Your task to perform on an android device: turn on data saver in the chrome app Image 0: 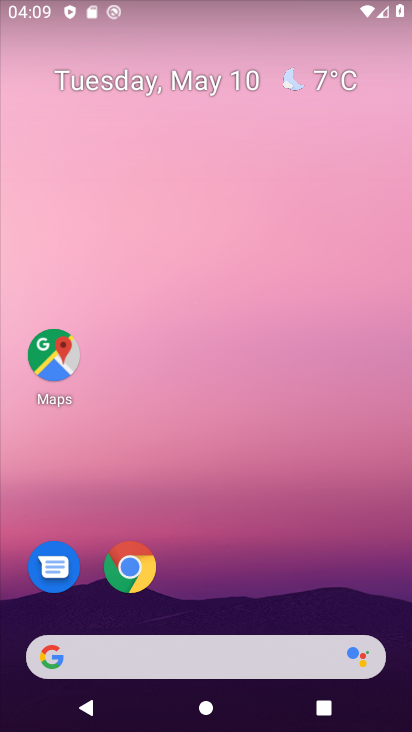
Step 0: click (127, 565)
Your task to perform on an android device: turn on data saver in the chrome app Image 1: 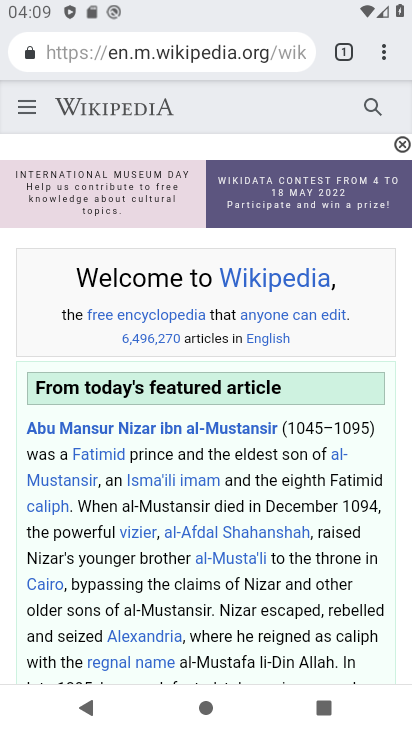
Step 1: click (379, 52)
Your task to perform on an android device: turn on data saver in the chrome app Image 2: 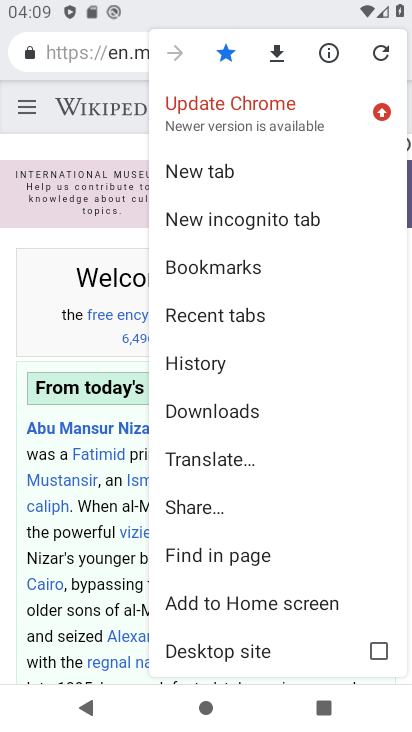
Step 2: drag from (289, 587) to (336, 422)
Your task to perform on an android device: turn on data saver in the chrome app Image 3: 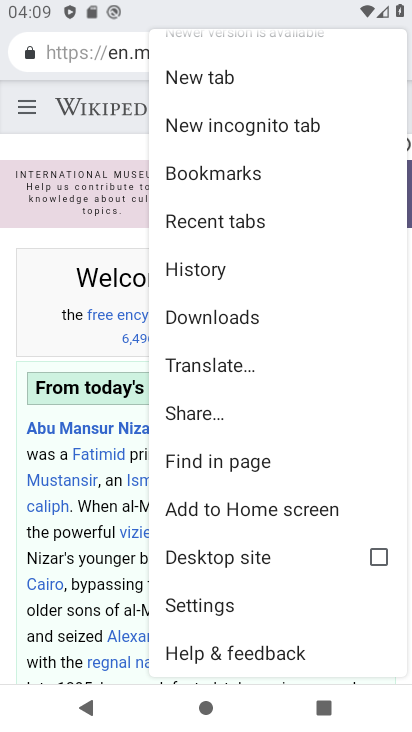
Step 3: click (208, 608)
Your task to perform on an android device: turn on data saver in the chrome app Image 4: 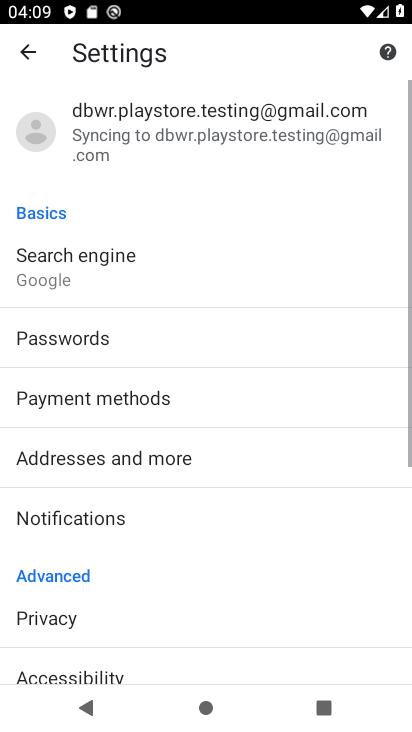
Step 4: drag from (165, 535) to (261, 375)
Your task to perform on an android device: turn on data saver in the chrome app Image 5: 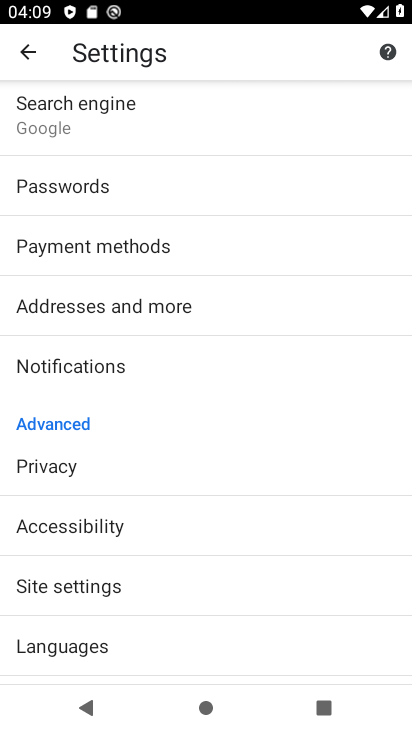
Step 5: drag from (175, 524) to (276, 370)
Your task to perform on an android device: turn on data saver in the chrome app Image 6: 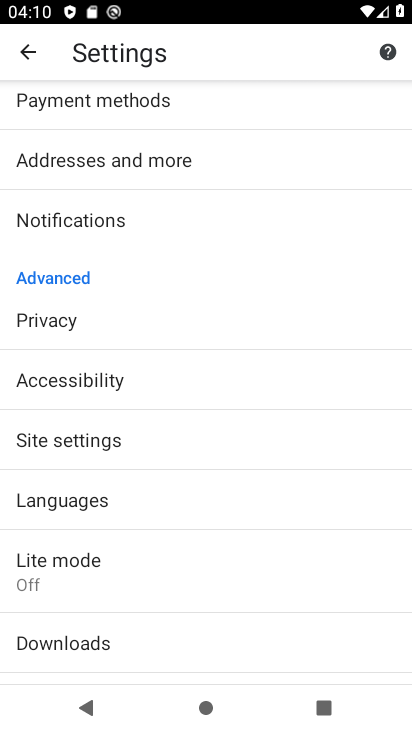
Step 6: click (73, 570)
Your task to perform on an android device: turn on data saver in the chrome app Image 7: 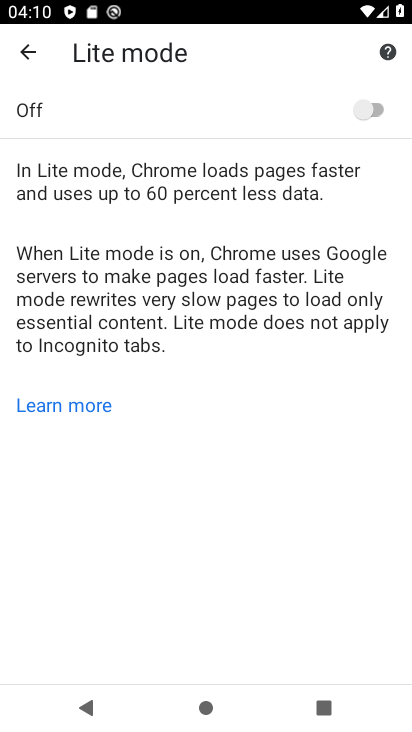
Step 7: click (380, 110)
Your task to perform on an android device: turn on data saver in the chrome app Image 8: 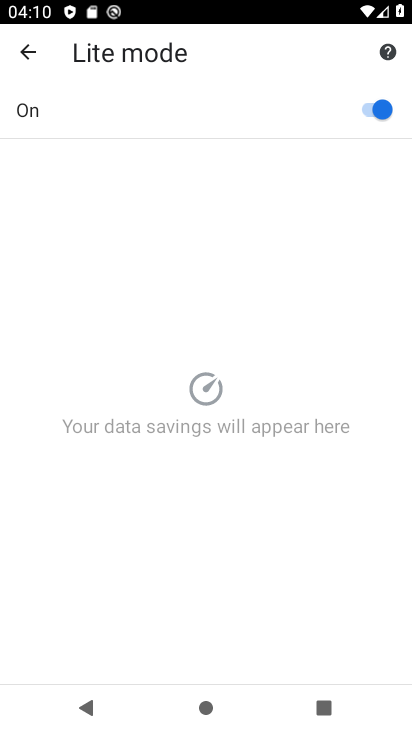
Step 8: task complete